Your task to perform on an android device: change keyboard looks Image 0: 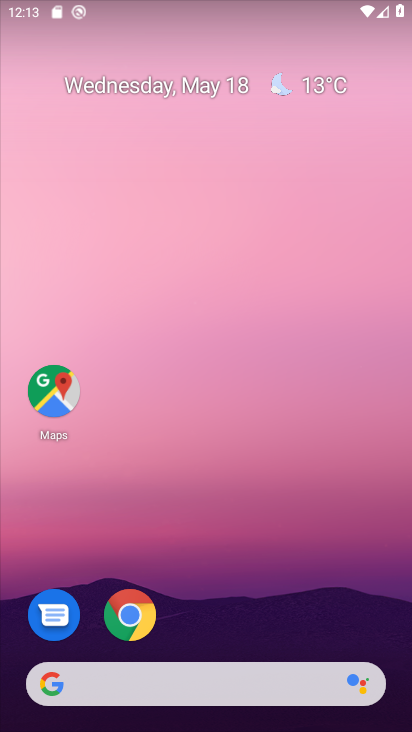
Step 0: drag from (386, 644) to (333, 348)
Your task to perform on an android device: change keyboard looks Image 1: 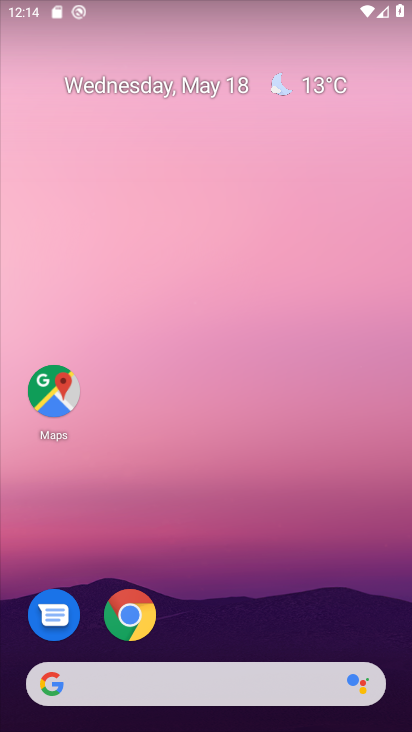
Step 1: drag from (365, 499) to (306, 167)
Your task to perform on an android device: change keyboard looks Image 2: 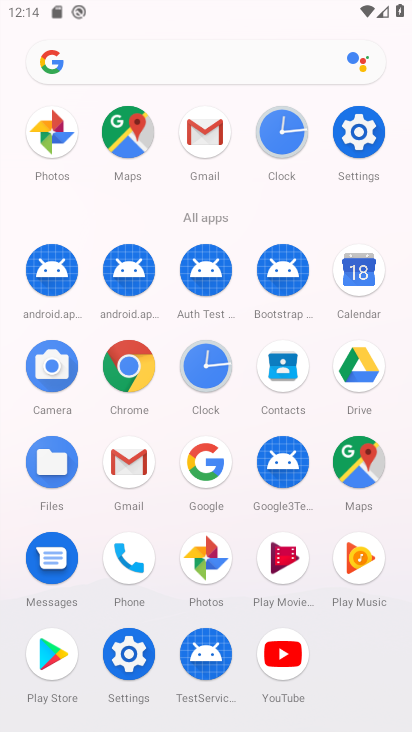
Step 2: click (144, 654)
Your task to perform on an android device: change keyboard looks Image 3: 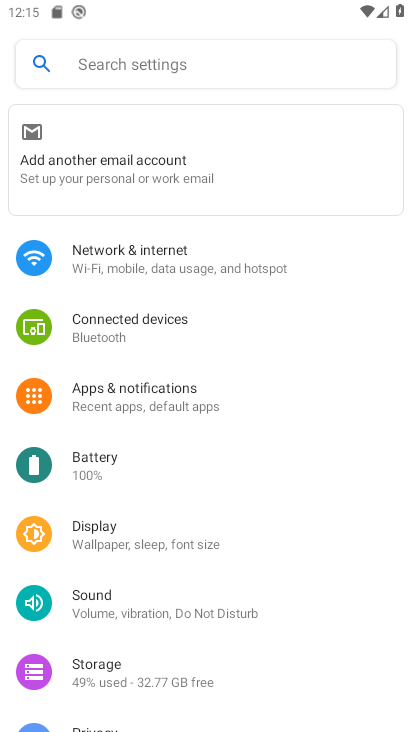
Step 3: click (304, 408)
Your task to perform on an android device: change keyboard looks Image 4: 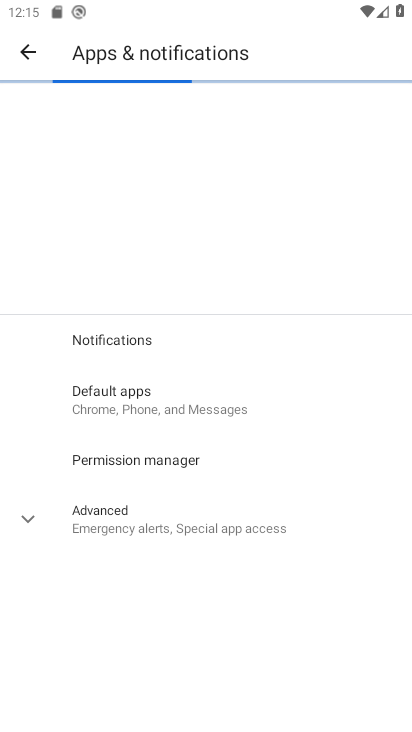
Step 4: drag from (331, 631) to (326, 427)
Your task to perform on an android device: change keyboard looks Image 5: 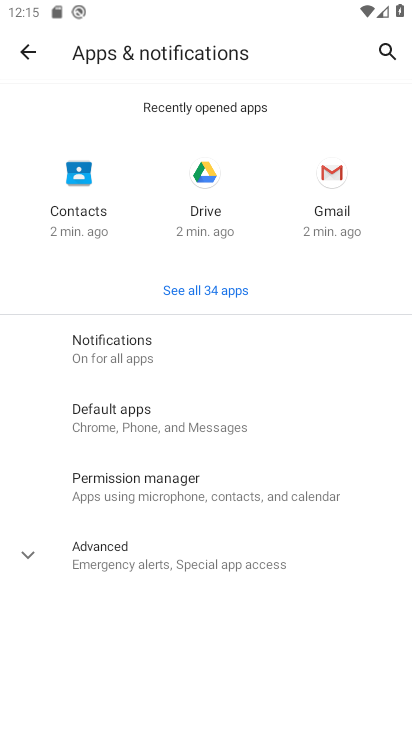
Step 5: click (21, 49)
Your task to perform on an android device: change keyboard looks Image 6: 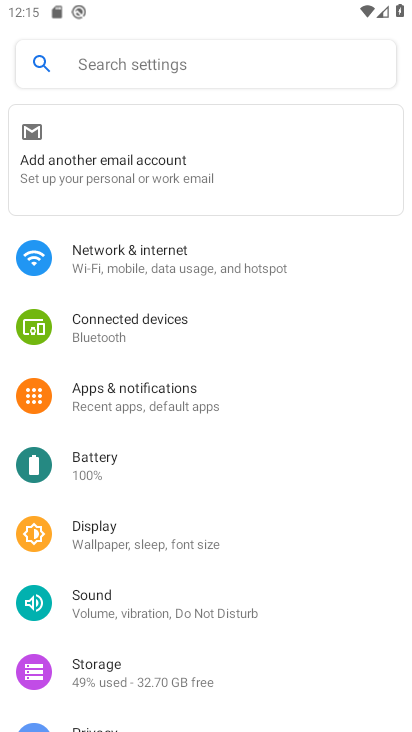
Step 6: drag from (354, 644) to (371, 272)
Your task to perform on an android device: change keyboard looks Image 7: 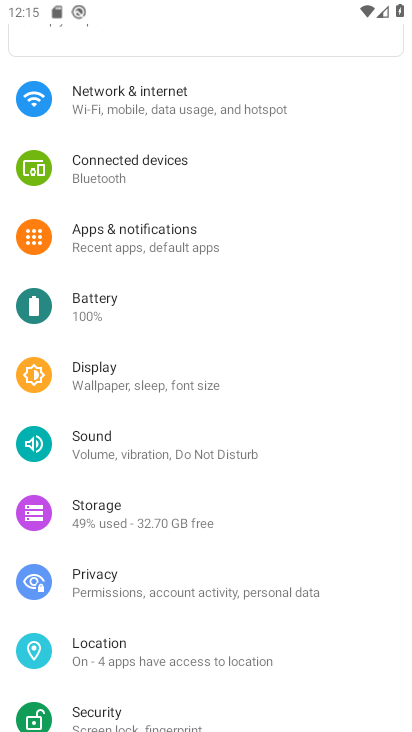
Step 7: drag from (328, 582) to (311, 356)
Your task to perform on an android device: change keyboard looks Image 8: 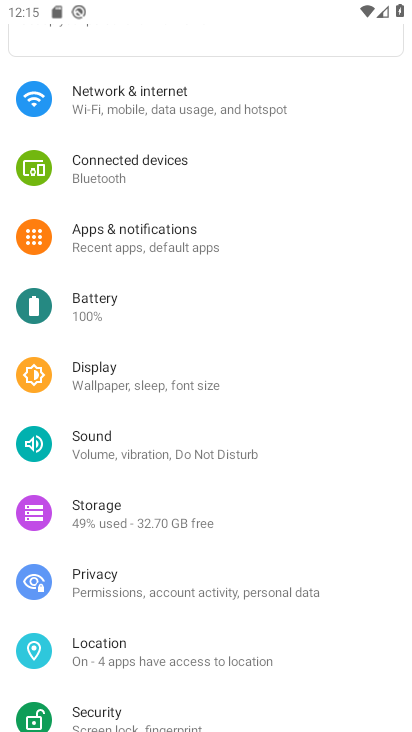
Step 8: drag from (322, 675) to (328, 423)
Your task to perform on an android device: change keyboard looks Image 9: 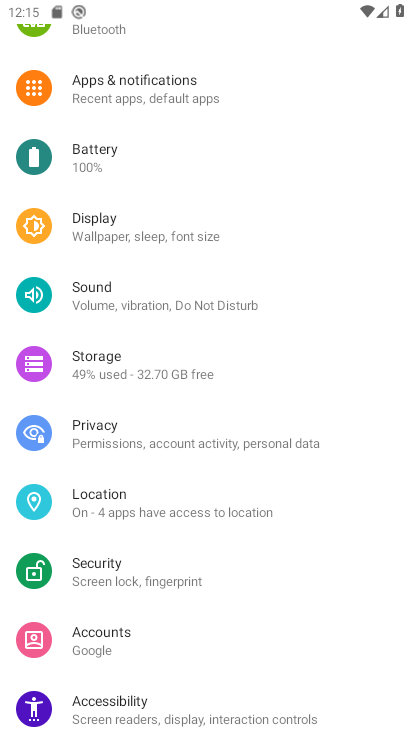
Step 9: drag from (332, 682) to (372, 363)
Your task to perform on an android device: change keyboard looks Image 10: 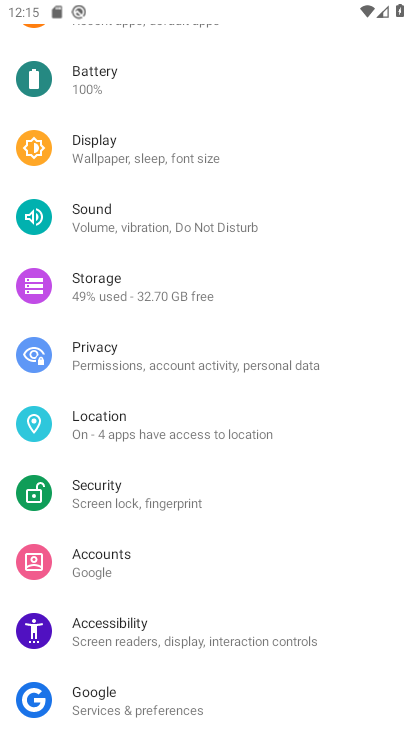
Step 10: click (333, 436)
Your task to perform on an android device: change keyboard looks Image 11: 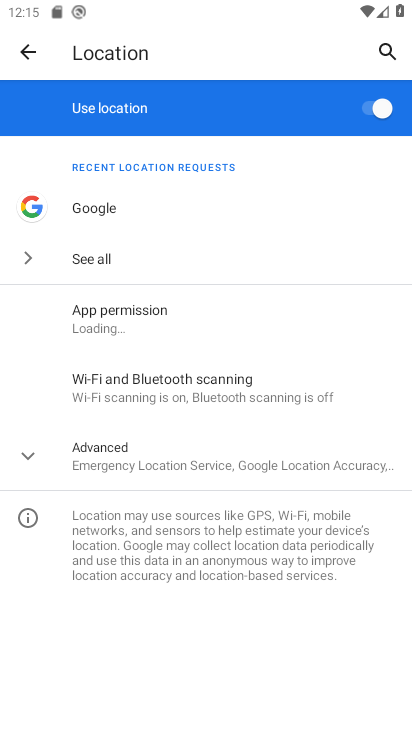
Step 11: click (31, 52)
Your task to perform on an android device: change keyboard looks Image 12: 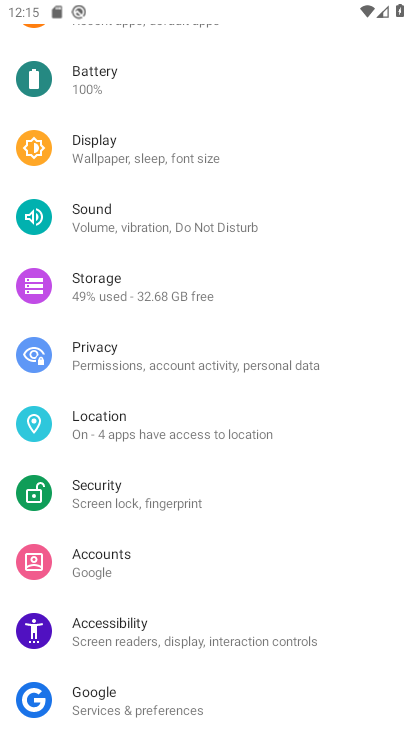
Step 12: drag from (346, 687) to (392, 342)
Your task to perform on an android device: change keyboard looks Image 13: 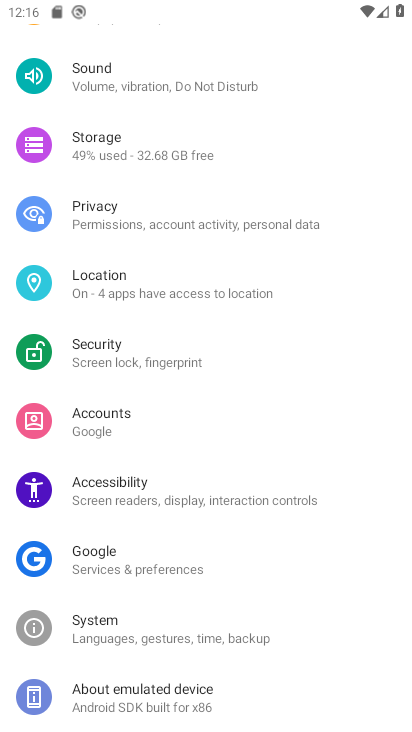
Step 13: drag from (370, 651) to (405, 265)
Your task to perform on an android device: change keyboard looks Image 14: 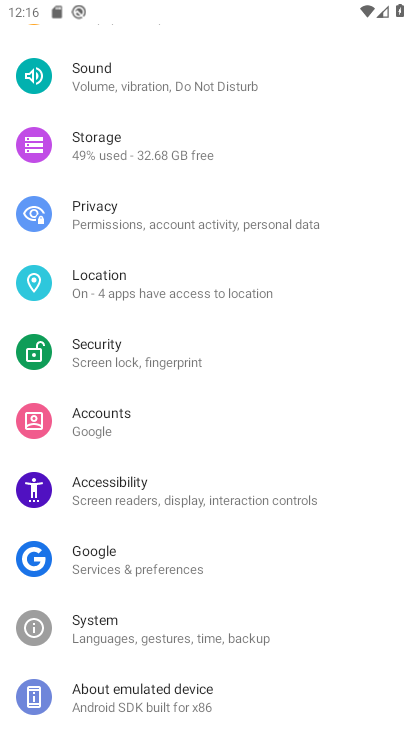
Step 14: click (136, 631)
Your task to perform on an android device: change keyboard looks Image 15: 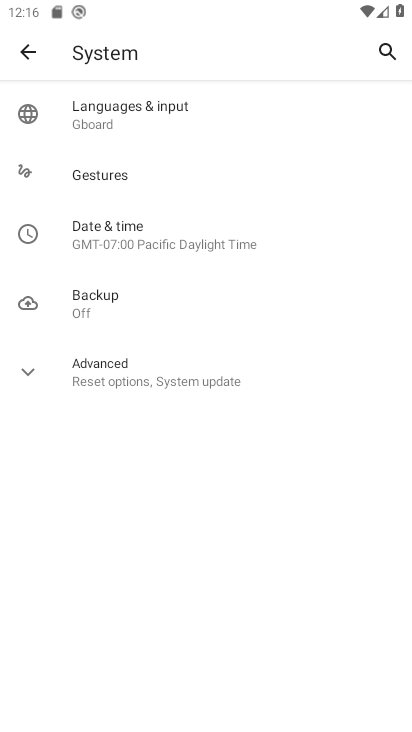
Step 15: click (105, 115)
Your task to perform on an android device: change keyboard looks Image 16: 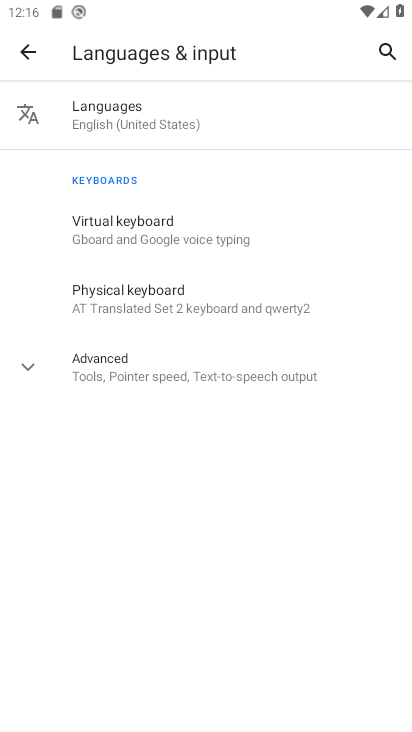
Step 16: click (101, 237)
Your task to perform on an android device: change keyboard looks Image 17: 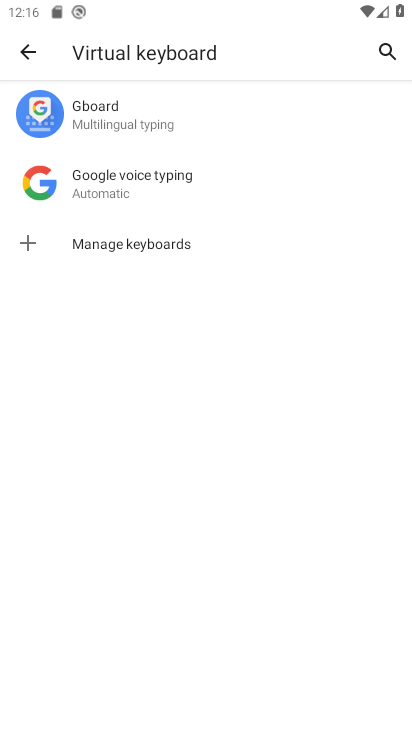
Step 17: click (89, 110)
Your task to perform on an android device: change keyboard looks Image 18: 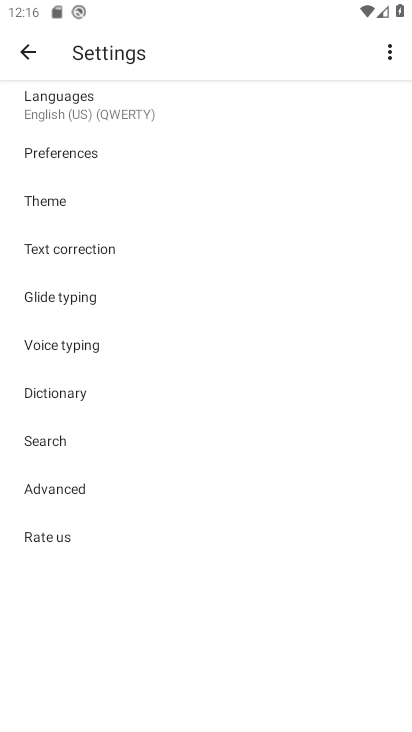
Step 18: click (41, 202)
Your task to perform on an android device: change keyboard looks Image 19: 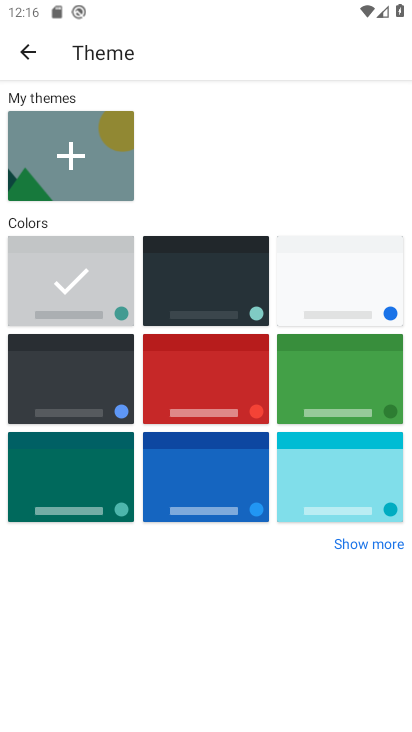
Step 19: click (292, 383)
Your task to perform on an android device: change keyboard looks Image 20: 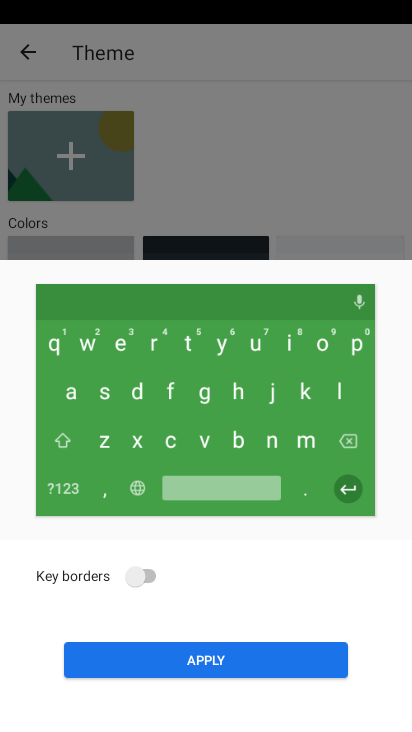
Step 20: click (147, 579)
Your task to perform on an android device: change keyboard looks Image 21: 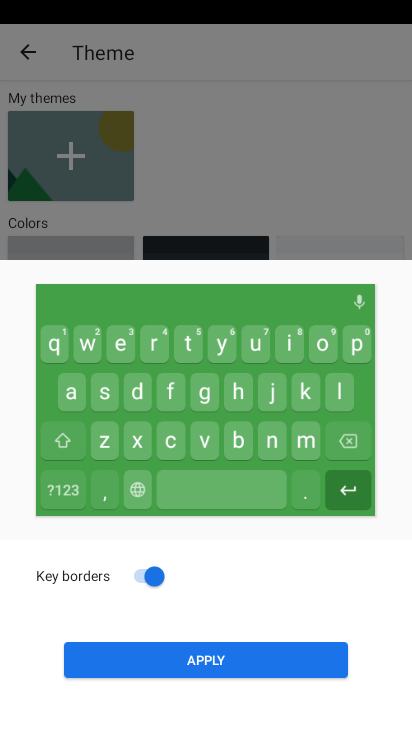
Step 21: click (272, 665)
Your task to perform on an android device: change keyboard looks Image 22: 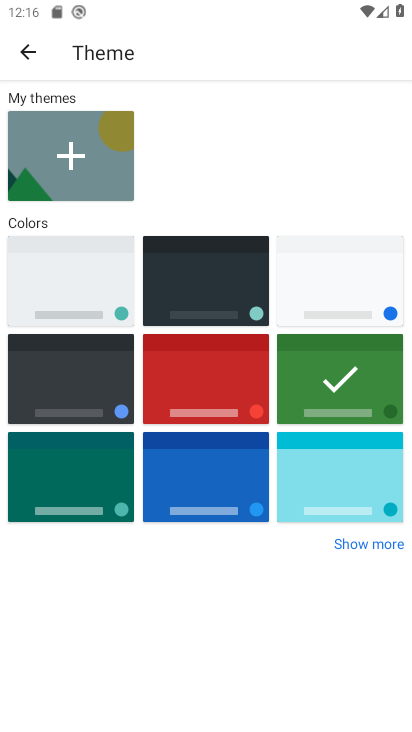
Step 22: task complete